Your task to perform on an android device: Open privacy settings Image 0: 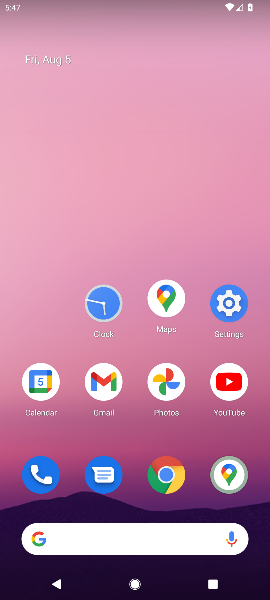
Step 0: click (228, 315)
Your task to perform on an android device: Open privacy settings Image 1: 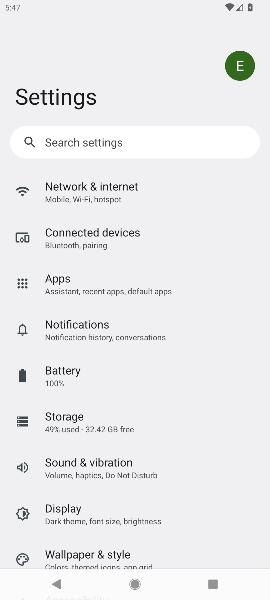
Step 1: drag from (191, 491) to (173, 241)
Your task to perform on an android device: Open privacy settings Image 2: 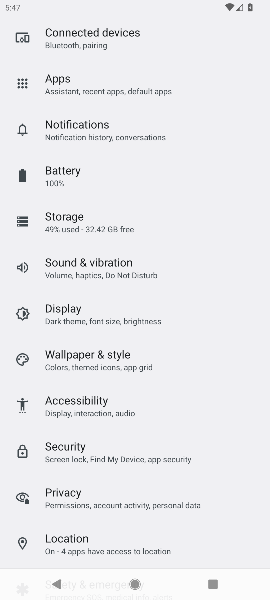
Step 2: click (72, 491)
Your task to perform on an android device: Open privacy settings Image 3: 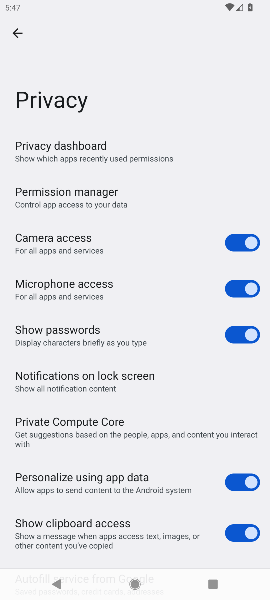
Step 3: task complete